Your task to perform on an android device: visit the assistant section in the google photos Image 0: 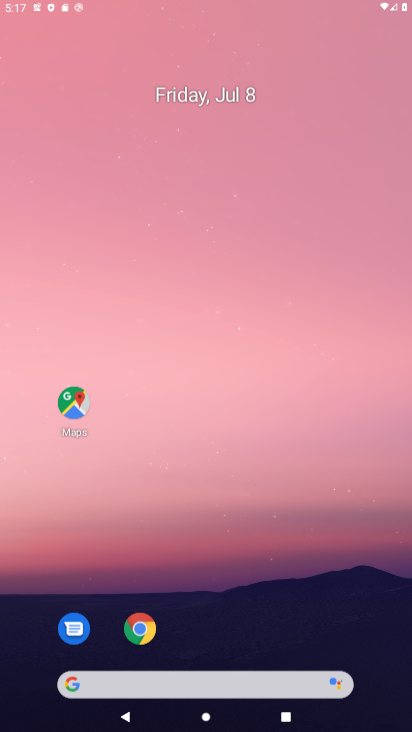
Step 0: press home button
Your task to perform on an android device: visit the assistant section in the google photos Image 1: 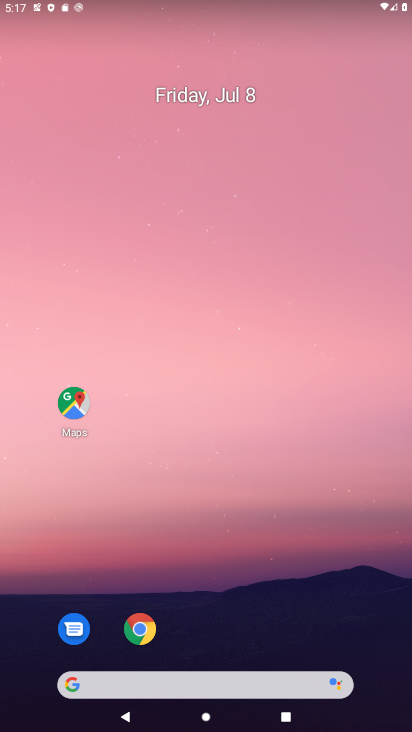
Step 1: drag from (259, 652) to (258, 236)
Your task to perform on an android device: visit the assistant section in the google photos Image 2: 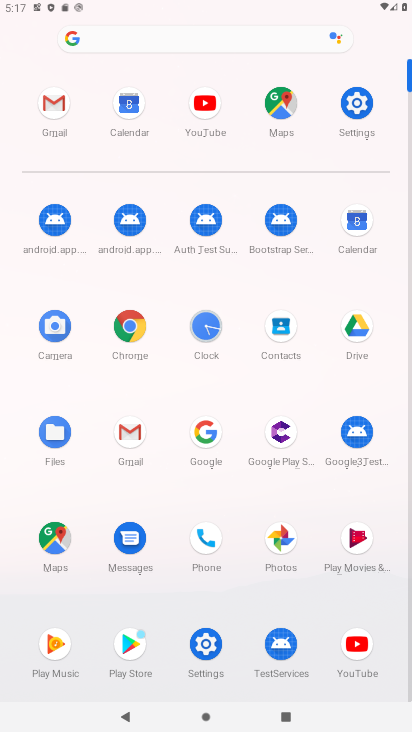
Step 2: click (279, 545)
Your task to perform on an android device: visit the assistant section in the google photos Image 3: 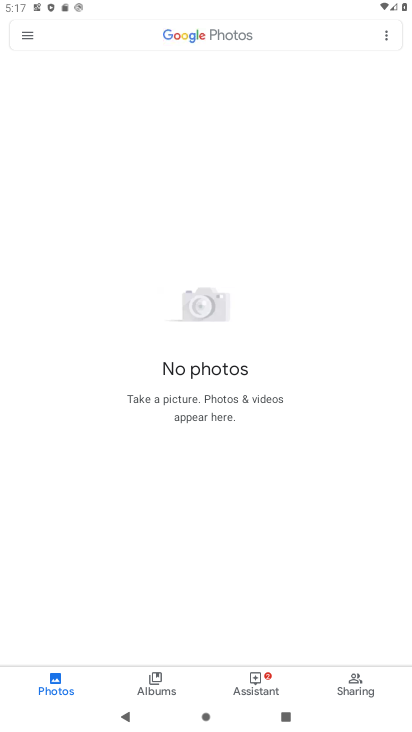
Step 3: click (261, 684)
Your task to perform on an android device: visit the assistant section in the google photos Image 4: 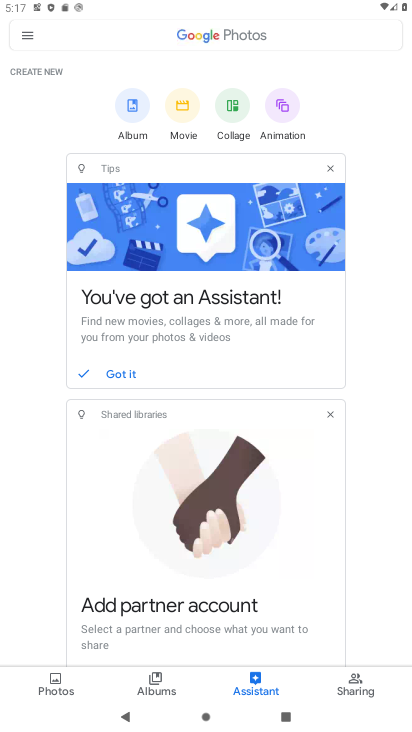
Step 4: task complete